Your task to perform on an android device: Open calendar and show me the fourth week of next month Image 0: 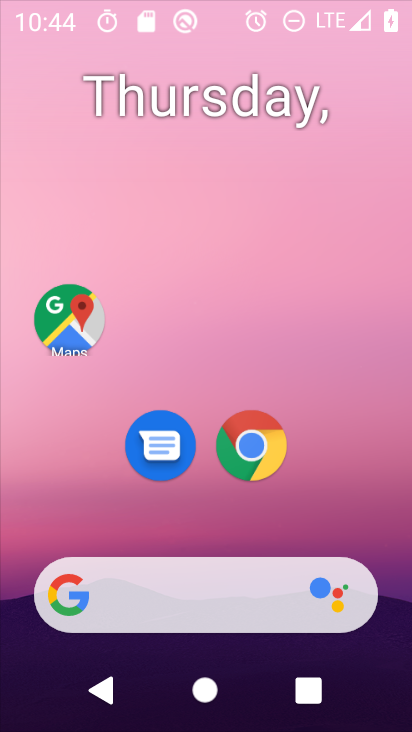
Step 0: drag from (241, 106) to (289, 61)
Your task to perform on an android device: Open calendar and show me the fourth week of next month Image 1: 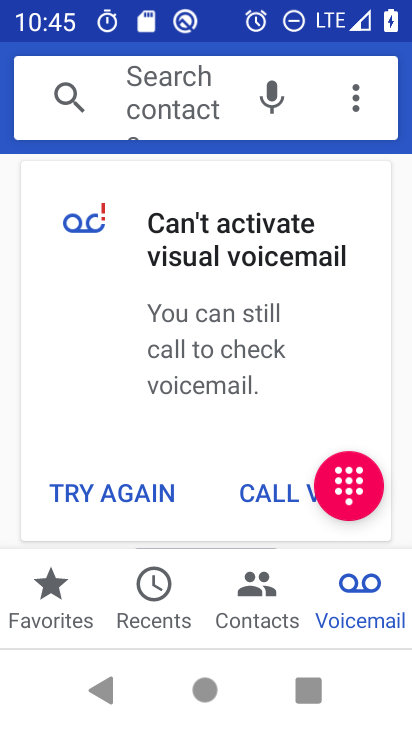
Step 1: press home button
Your task to perform on an android device: Open calendar and show me the fourth week of next month Image 2: 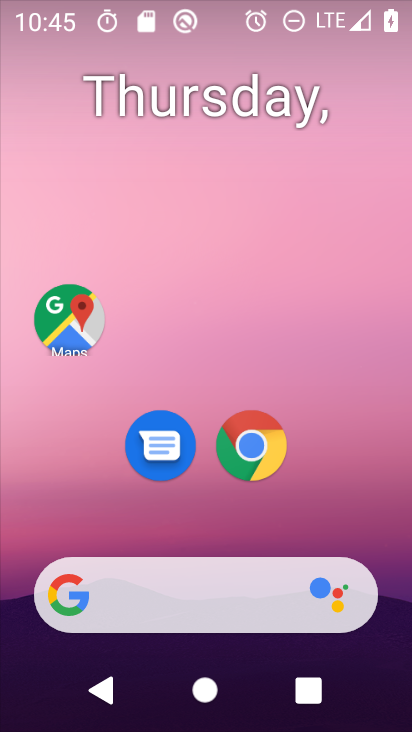
Step 2: drag from (180, 545) to (209, 112)
Your task to perform on an android device: Open calendar and show me the fourth week of next month Image 3: 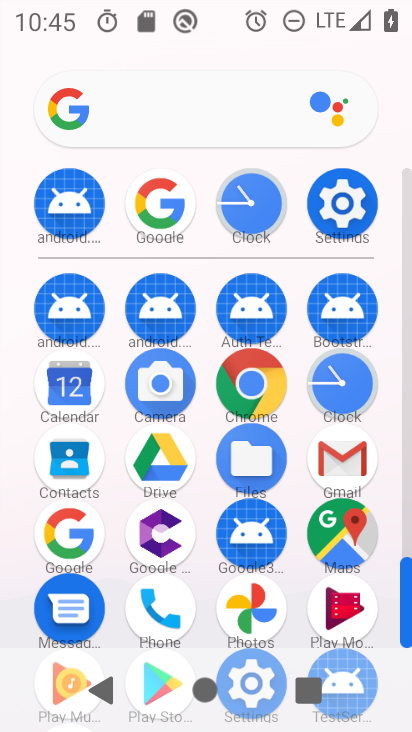
Step 3: click (58, 365)
Your task to perform on an android device: Open calendar and show me the fourth week of next month Image 4: 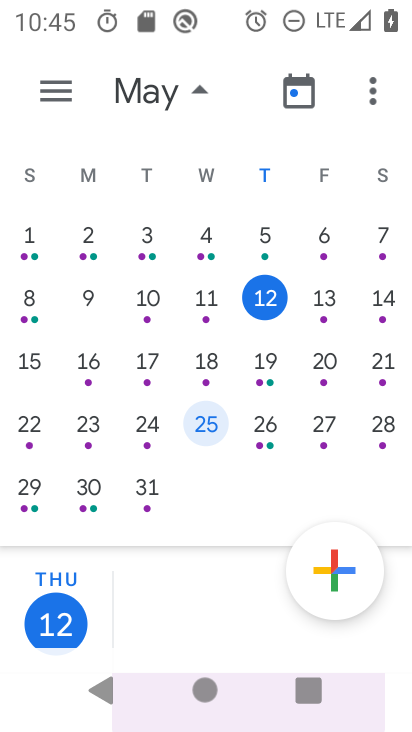
Step 4: drag from (342, 366) to (0, 354)
Your task to perform on an android device: Open calendar and show me the fourth week of next month Image 5: 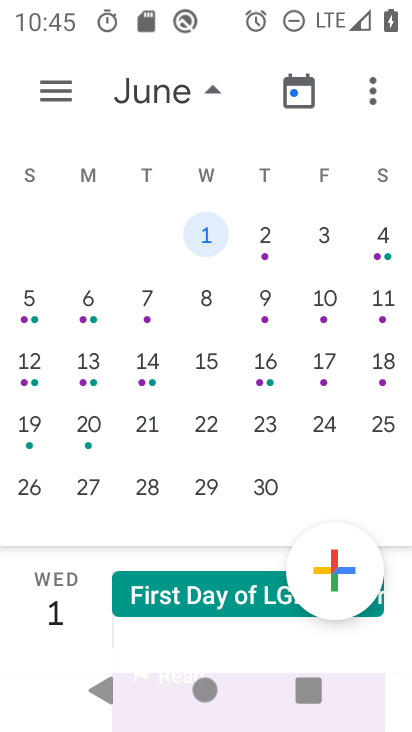
Step 5: click (263, 419)
Your task to perform on an android device: Open calendar and show me the fourth week of next month Image 6: 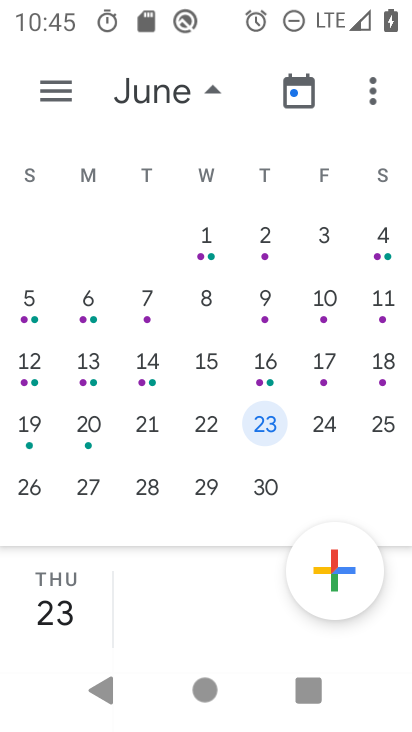
Step 6: task complete